Your task to perform on an android device: Go to Google maps Image 0: 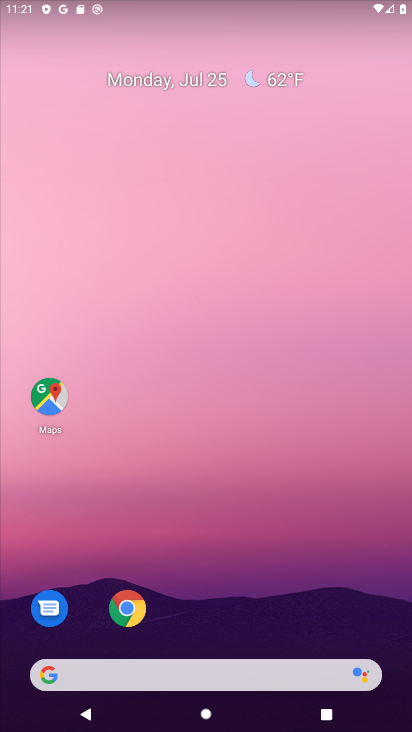
Step 0: click (51, 397)
Your task to perform on an android device: Go to Google maps Image 1: 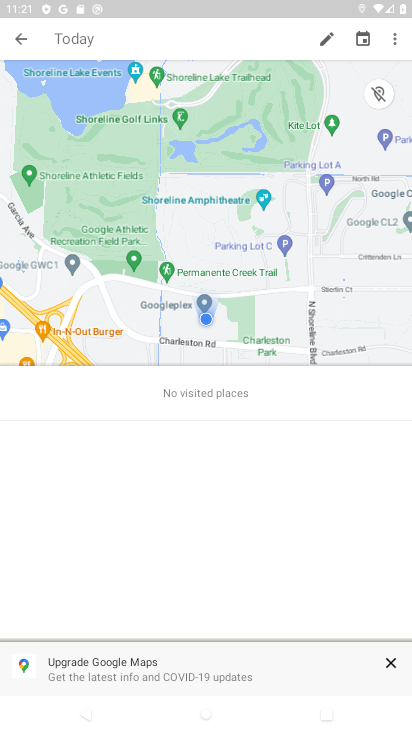
Step 1: task complete